Your task to perform on an android device: turn on javascript in the chrome app Image 0: 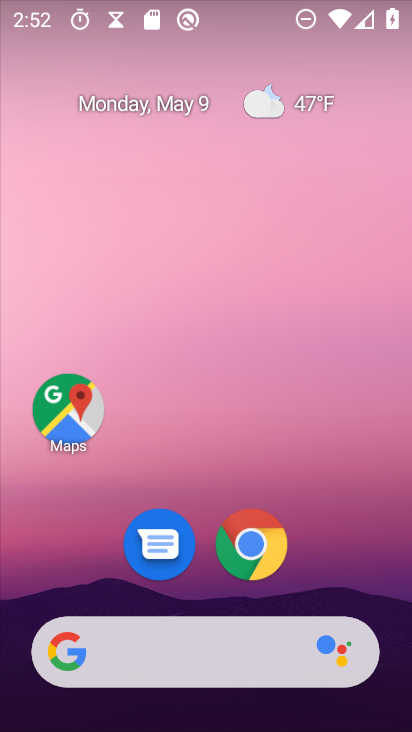
Step 0: click (249, 564)
Your task to perform on an android device: turn on javascript in the chrome app Image 1: 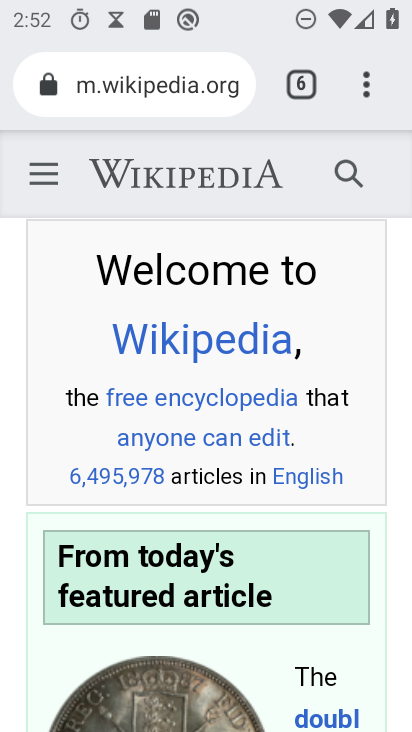
Step 1: drag from (379, 87) to (70, 604)
Your task to perform on an android device: turn on javascript in the chrome app Image 2: 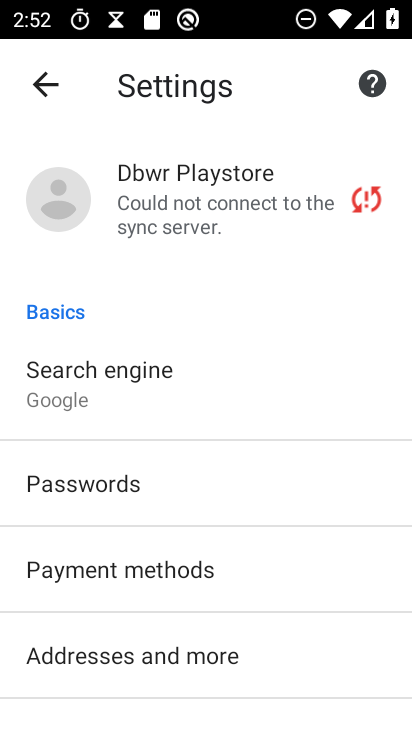
Step 2: drag from (168, 555) to (83, 222)
Your task to perform on an android device: turn on javascript in the chrome app Image 3: 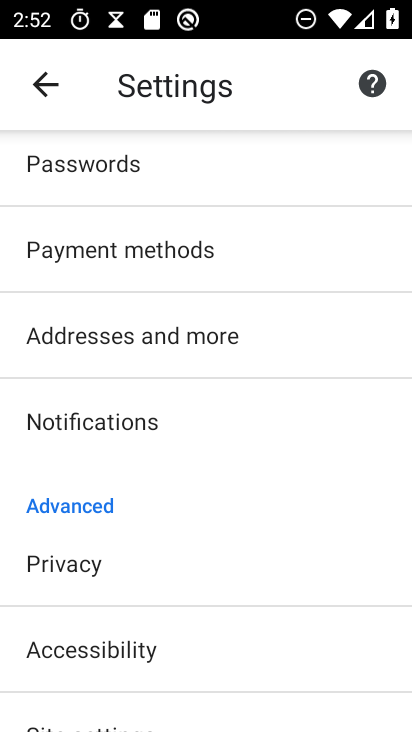
Step 3: drag from (180, 654) to (150, 257)
Your task to perform on an android device: turn on javascript in the chrome app Image 4: 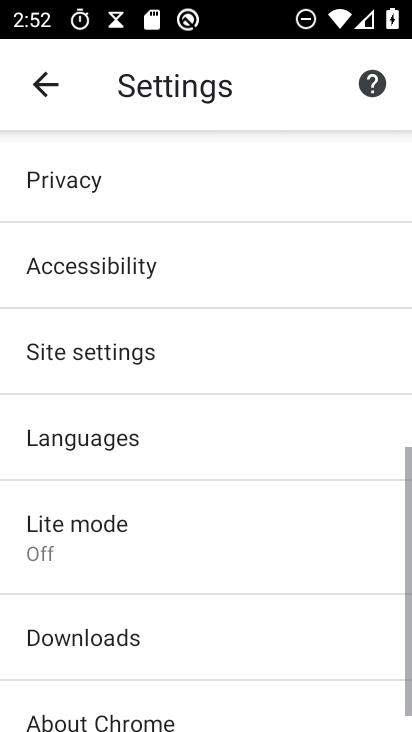
Step 4: drag from (200, 655) to (231, 281)
Your task to perform on an android device: turn on javascript in the chrome app Image 5: 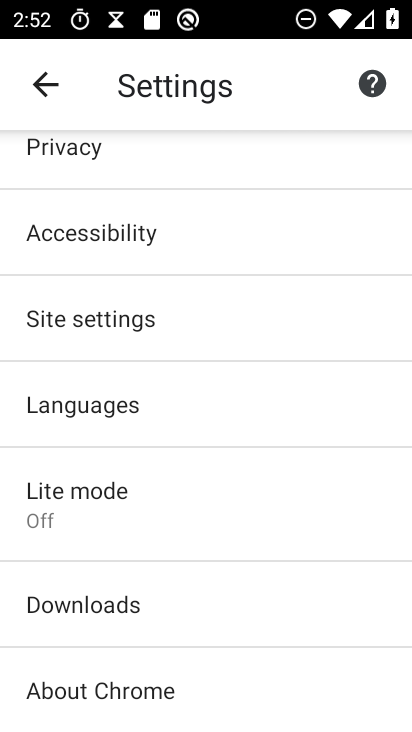
Step 5: drag from (208, 592) to (229, 252)
Your task to perform on an android device: turn on javascript in the chrome app Image 6: 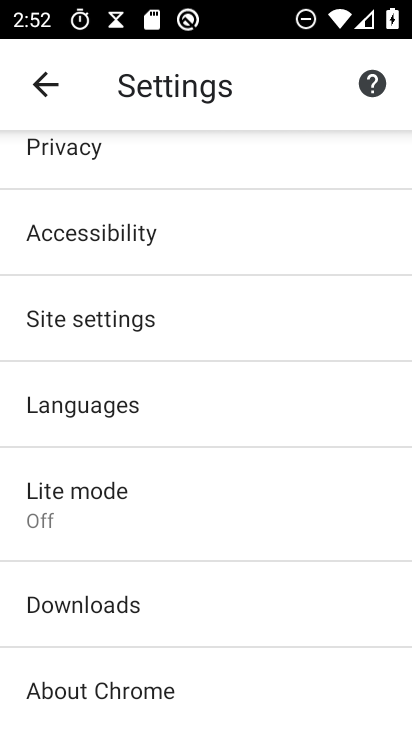
Step 6: click (149, 305)
Your task to perform on an android device: turn on javascript in the chrome app Image 7: 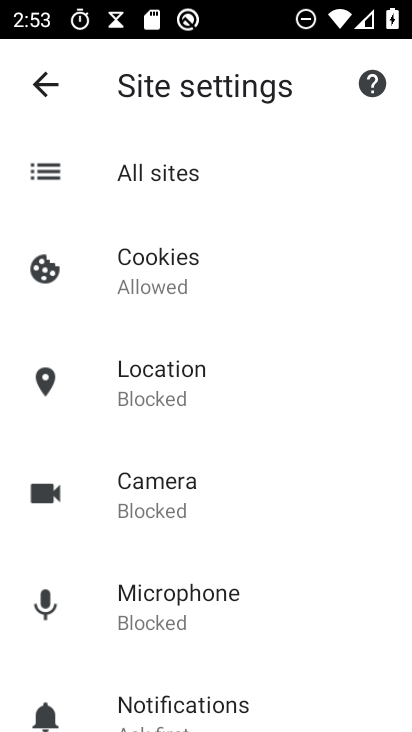
Step 7: drag from (217, 678) to (182, 218)
Your task to perform on an android device: turn on javascript in the chrome app Image 8: 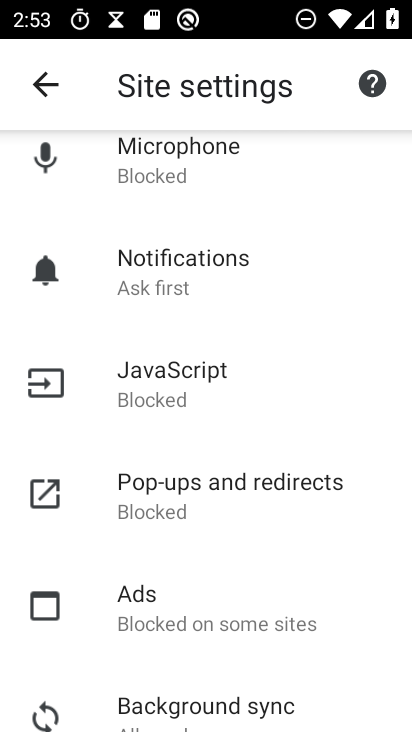
Step 8: click (175, 358)
Your task to perform on an android device: turn on javascript in the chrome app Image 9: 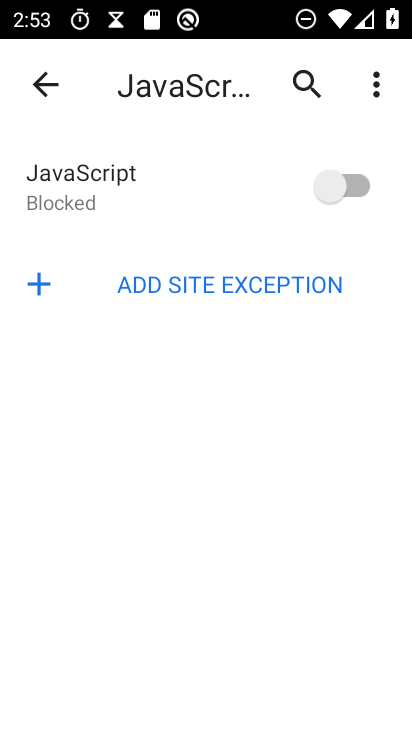
Step 9: click (317, 177)
Your task to perform on an android device: turn on javascript in the chrome app Image 10: 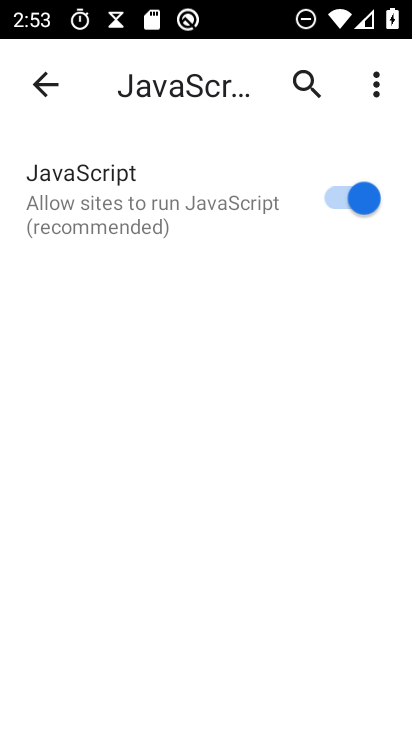
Step 10: task complete